Your task to perform on an android device: Do I have any events tomorrow? Image 0: 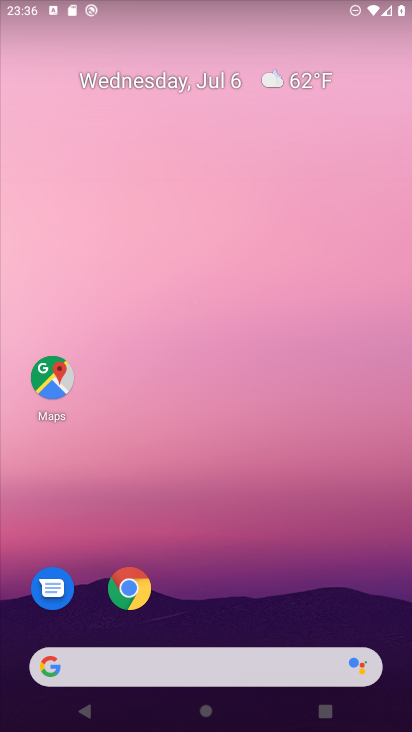
Step 0: drag from (368, 611) to (334, 80)
Your task to perform on an android device: Do I have any events tomorrow? Image 1: 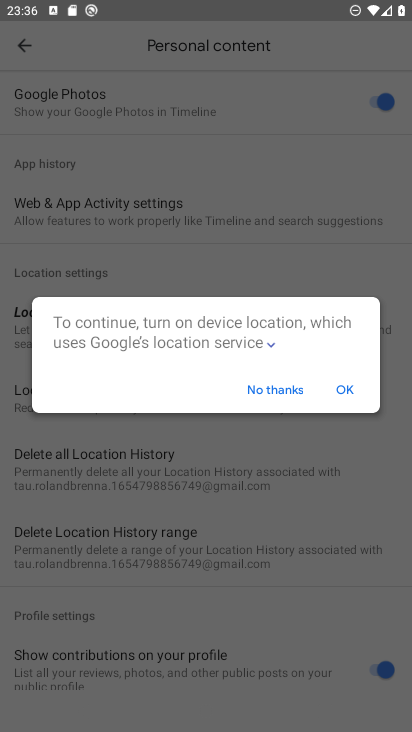
Step 1: press home button
Your task to perform on an android device: Do I have any events tomorrow? Image 2: 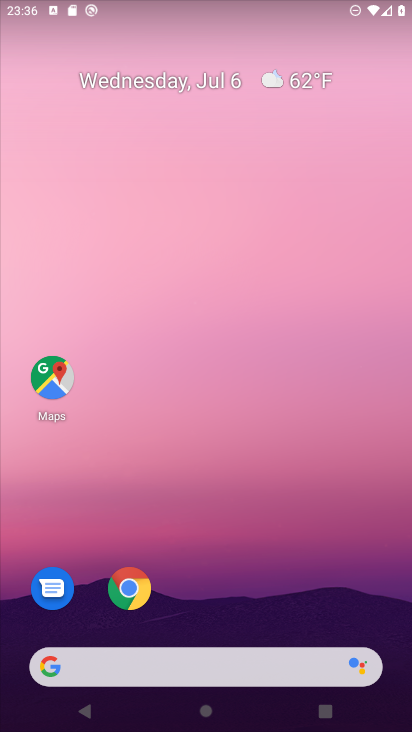
Step 2: drag from (337, 586) to (314, 208)
Your task to perform on an android device: Do I have any events tomorrow? Image 3: 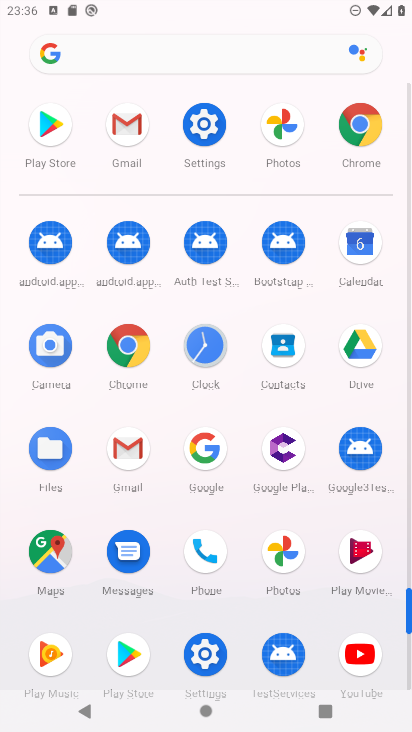
Step 3: click (360, 243)
Your task to perform on an android device: Do I have any events tomorrow? Image 4: 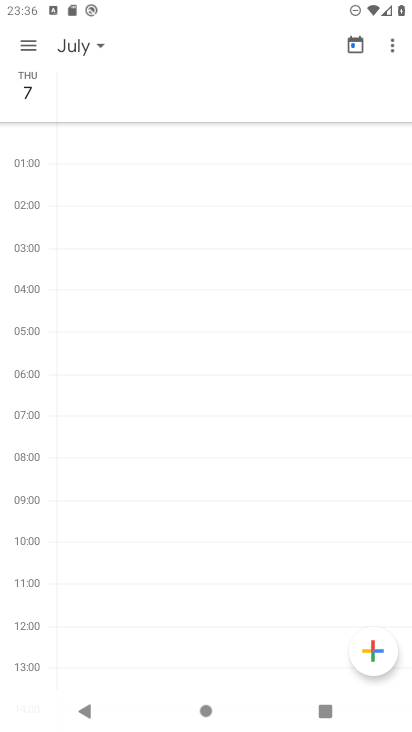
Step 4: click (231, 325)
Your task to perform on an android device: Do I have any events tomorrow? Image 5: 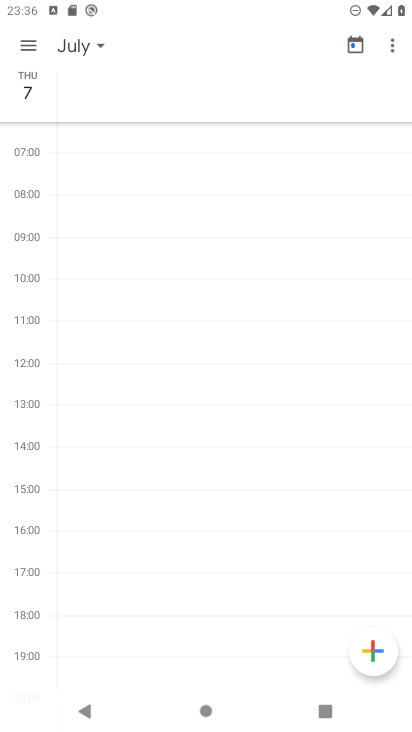
Step 5: task complete